Your task to perform on an android device: Open the map Image 0: 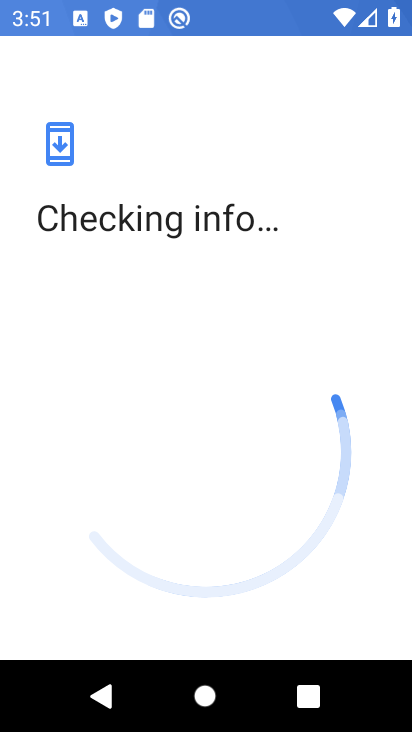
Step 0: press home button
Your task to perform on an android device: Open the map Image 1: 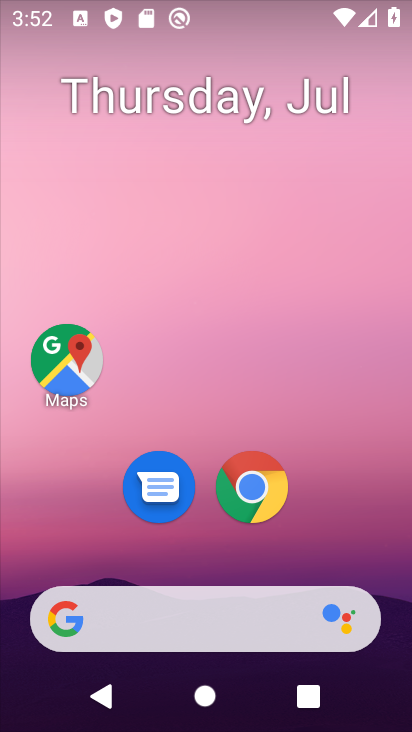
Step 1: drag from (314, 589) to (375, 38)
Your task to perform on an android device: Open the map Image 2: 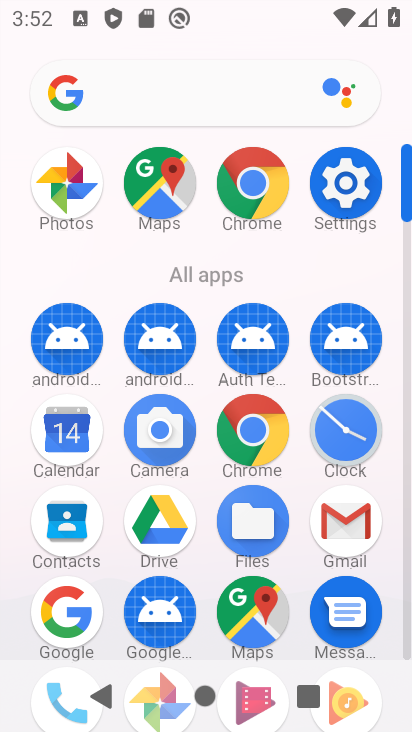
Step 2: drag from (246, 473) to (310, 260)
Your task to perform on an android device: Open the map Image 3: 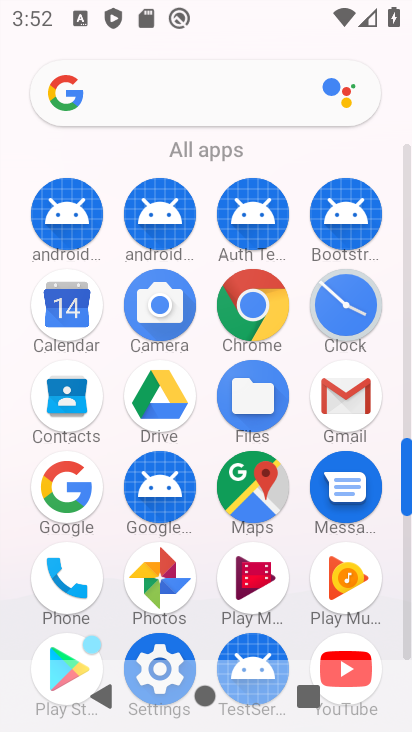
Step 3: click (261, 515)
Your task to perform on an android device: Open the map Image 4: 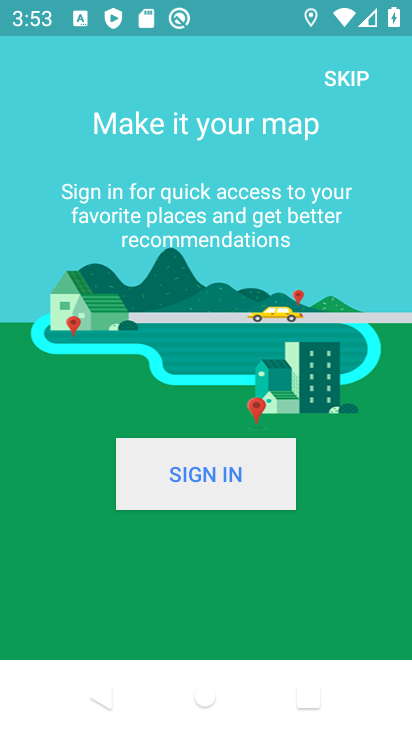
Step 4: click (343, 79)
Your task to perform on an android device: Open the map Image 5: 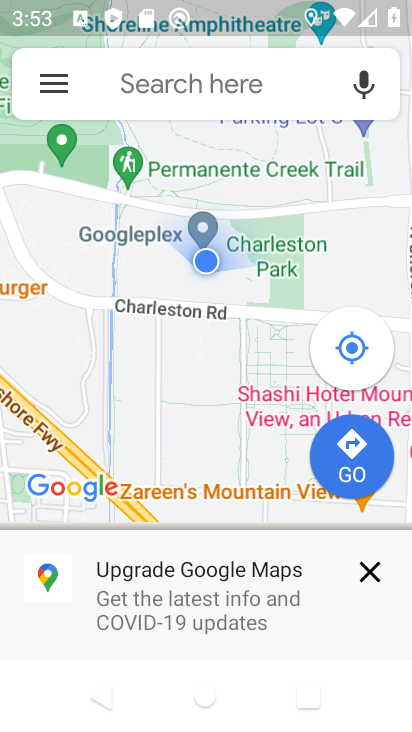
Step 5: task complete